Your task to perform on an android device: Do I have any events tomorrow? Image 0: 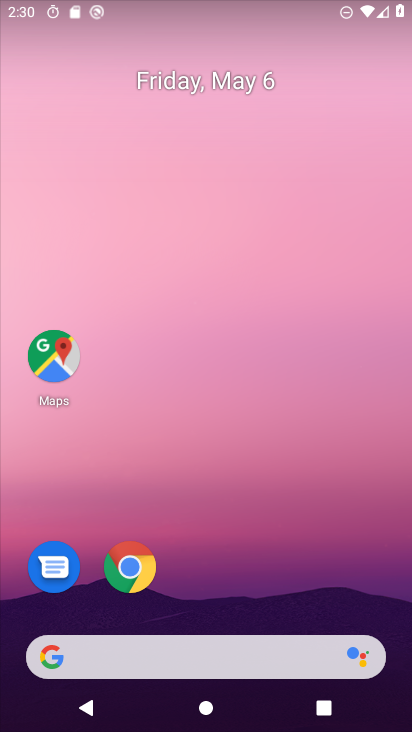
Step 0: drag from (261, 690) to (241, 283)
Your task to perform on an android device: Do I have any events tomorrow? Image 1: 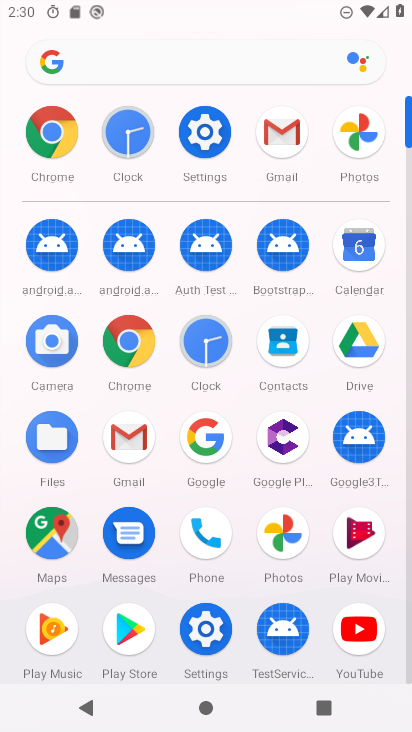
Step 1: click (355, 259)
Your task to perform on an android device: Do I have any events tomorrow? Image 2: 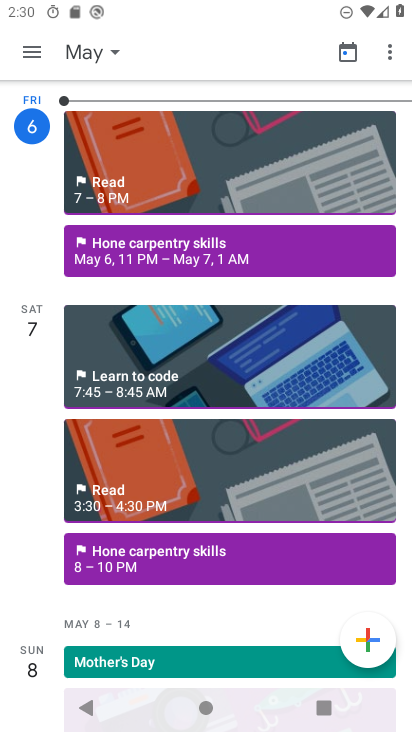
Step 2: click (28, 326)
Your task to perform on an android device: Do I have any events tomorrow? Image 3: 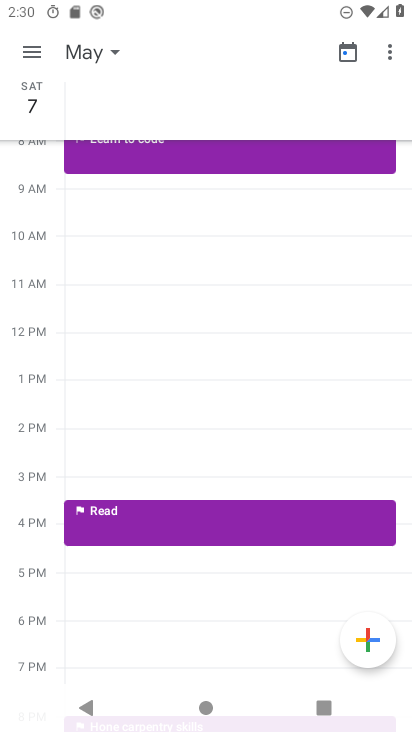
Step 3: task complete